Your task to perform on an android device: turn smart compose on in the gmail app Image 0: 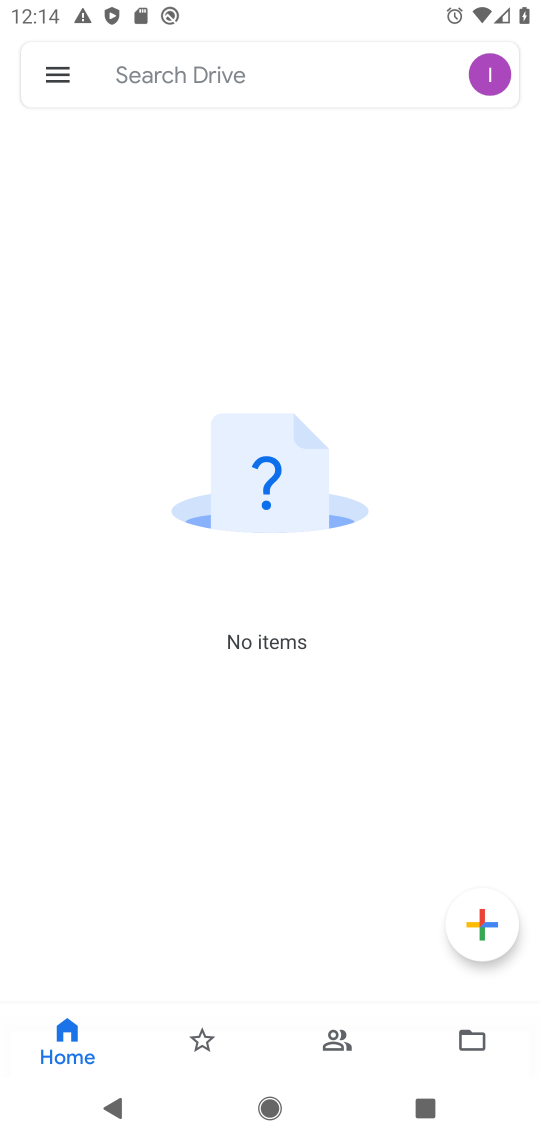
Step 0: press home button
Your task to perform on an android device: turn smart compose on in the gmail app Image 1: 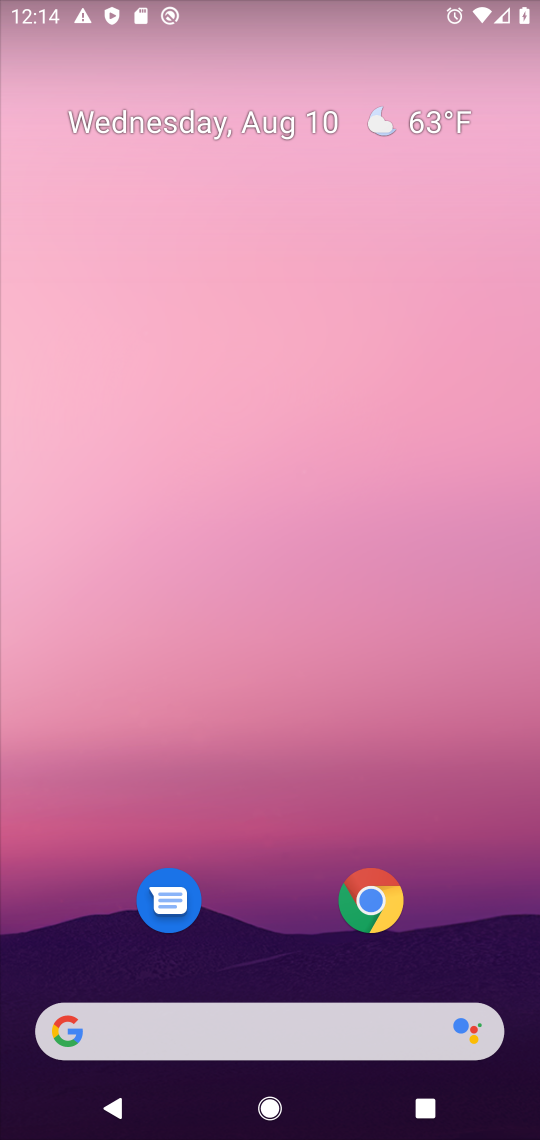
Step 1: drag from (259, 859) to (238, 0)
Your task to perform on an android device: turn smart compose on in the gmail app Image 2: 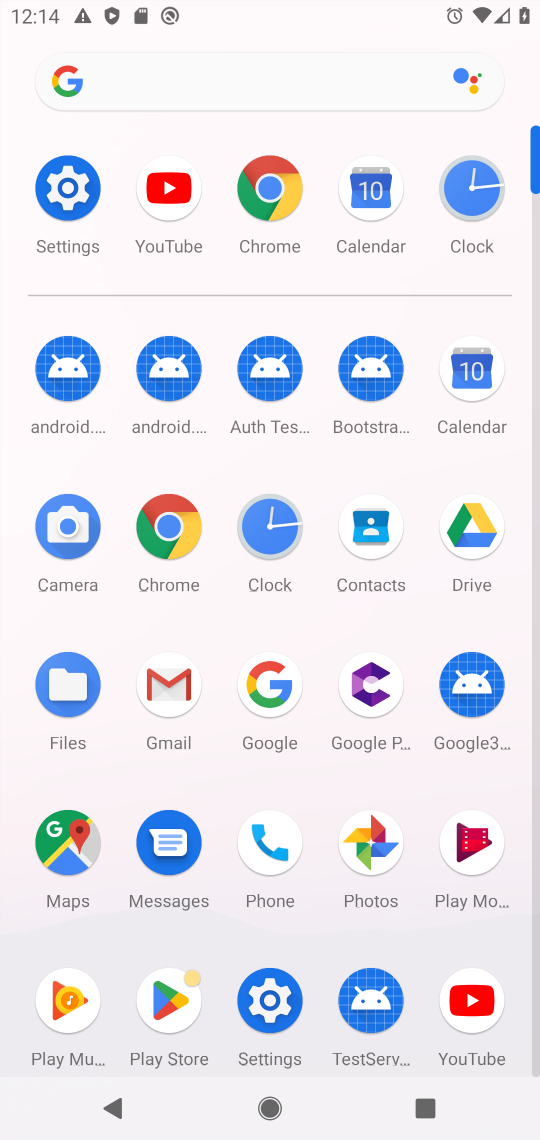
Step 2: click (172, 688)
Your task to perform on an android device: turn smart compose on in the gmail app Image 3: 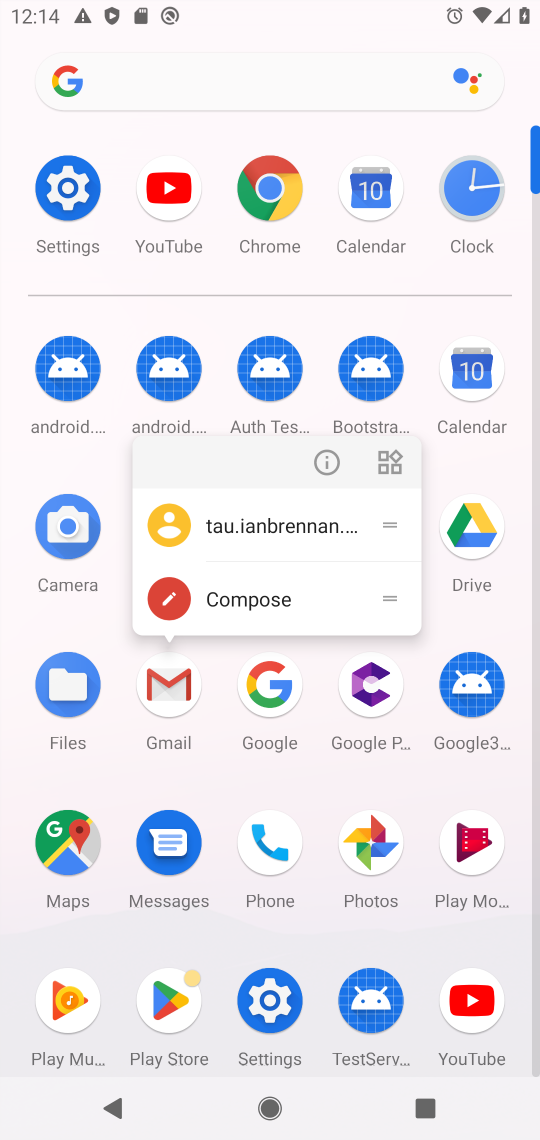
Step 3: click (173, 692)
Your task to perform on an android device: turn smart compose on in the gmail app Image 4: 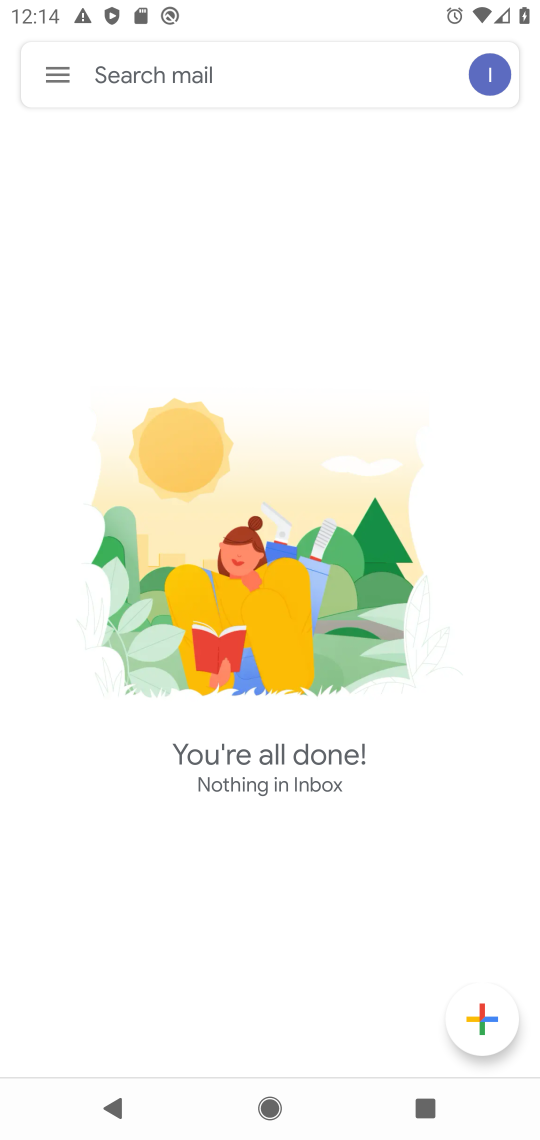
Step 4: click (62, 75)
Your task to perform on an android device: turn smart compose on in the gmail app Image 5: 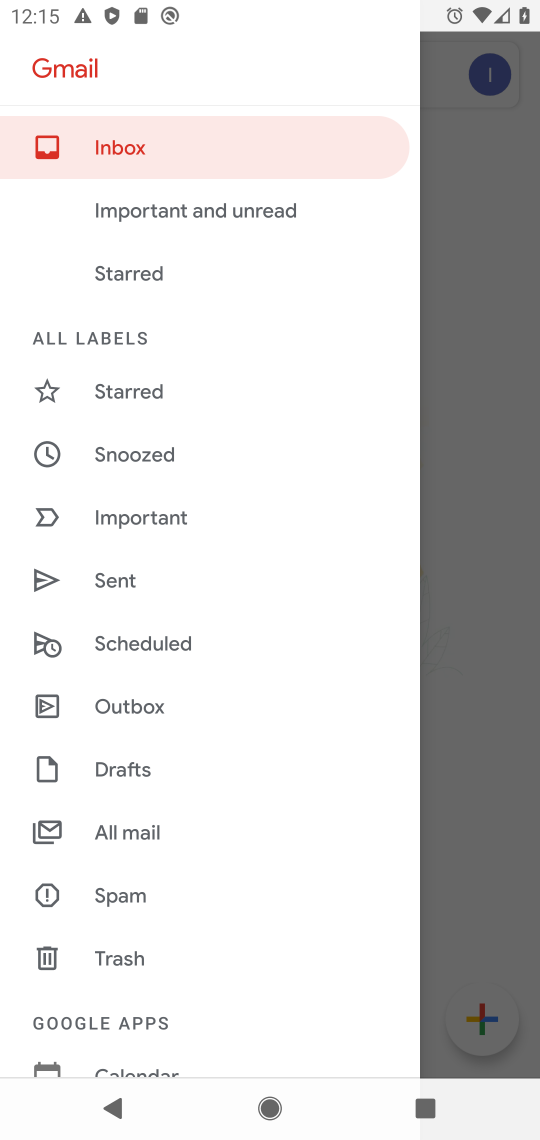
Step 5: drag from (215, 819) to (240, 235)
Your task to perform on an android device: turn smart compose on in the gmail app Image 6: 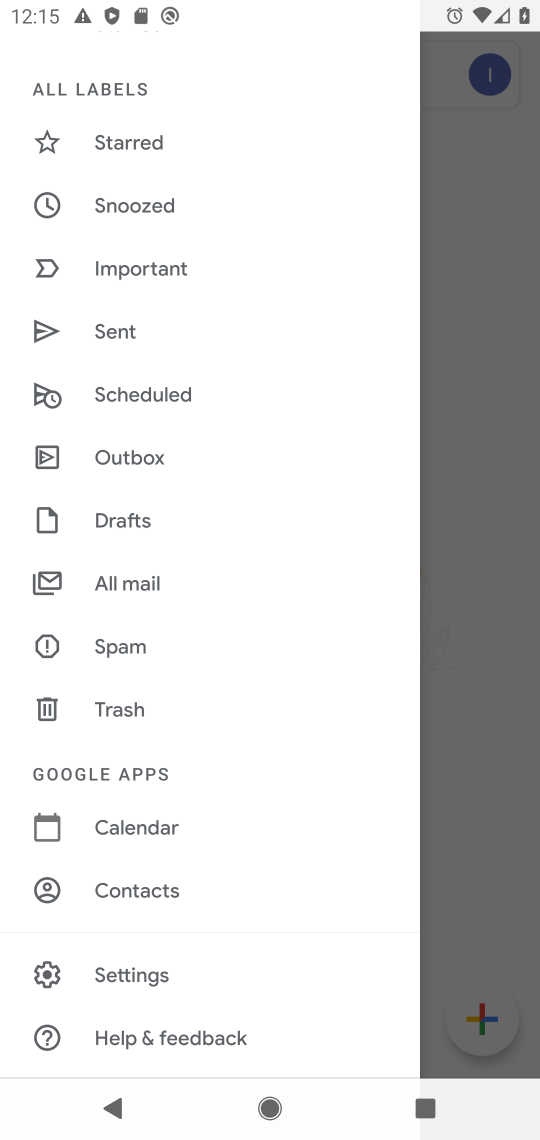
Step 6: click (131, 970)
Your task to perform on an android device: turn smart compose on in the gmail app Image 7: 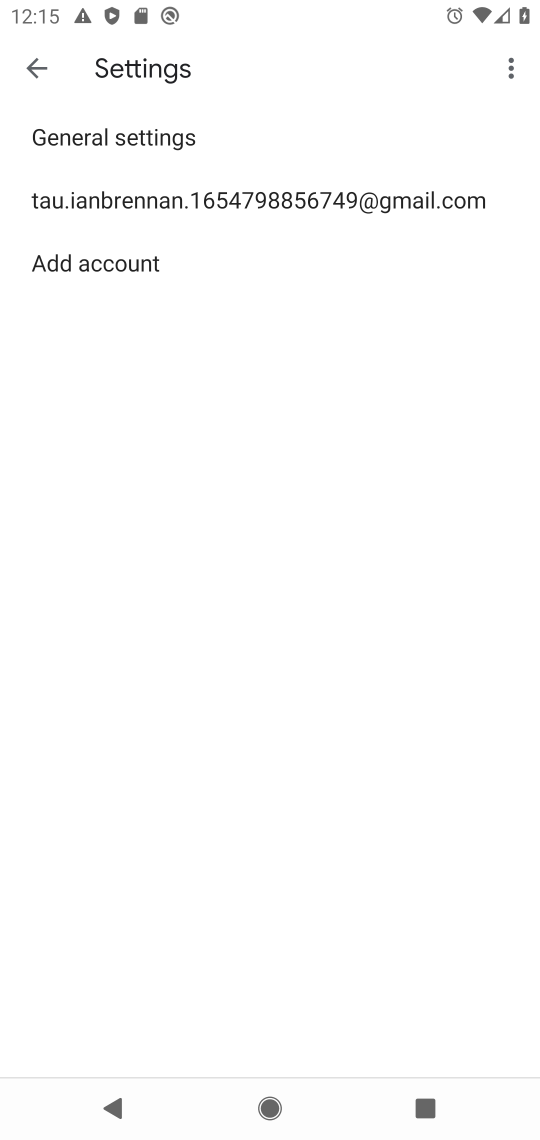
Step 7: click (377, 199)
Your task to perform on an android device: turn smart compose on in the gmail app Image 8: 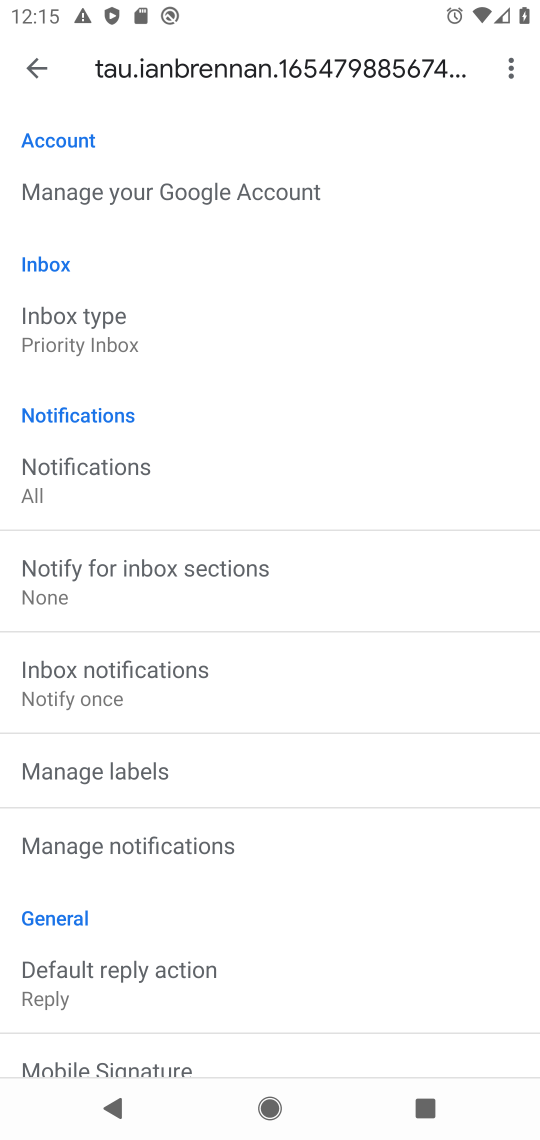
Step 8: task complete